Your task to perform on an android device: When is my next meeting? Image 0: 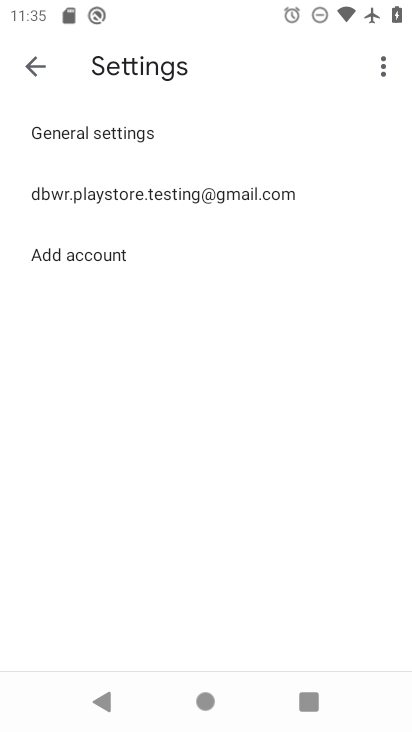
Step 0: press home button
Your task to perform on an android device: When is my next meeting? Image 1: 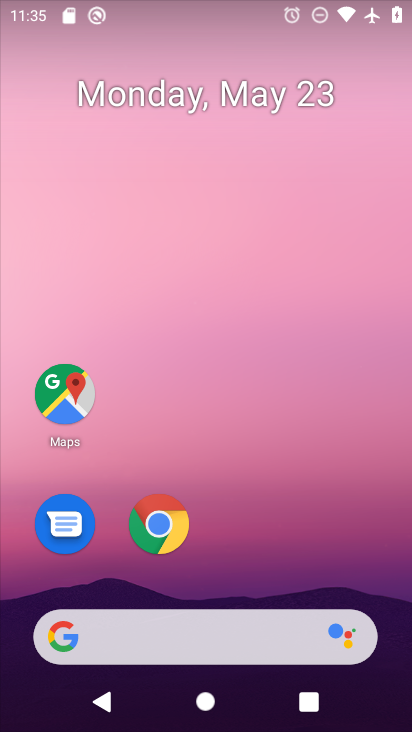
Step 1: drag from (248, 569) to (297, 123)
Your task to perform on an android device: When is my next meeting? Image 2: 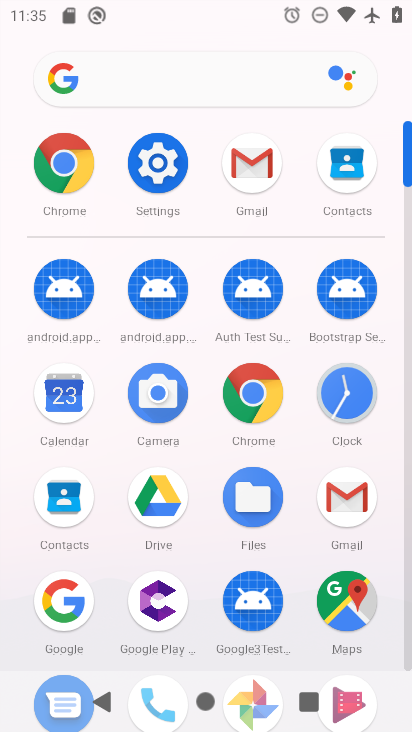
Step 2: click (76, 406)
Your task to perform on an android device: When is my next meeting? Image 3: 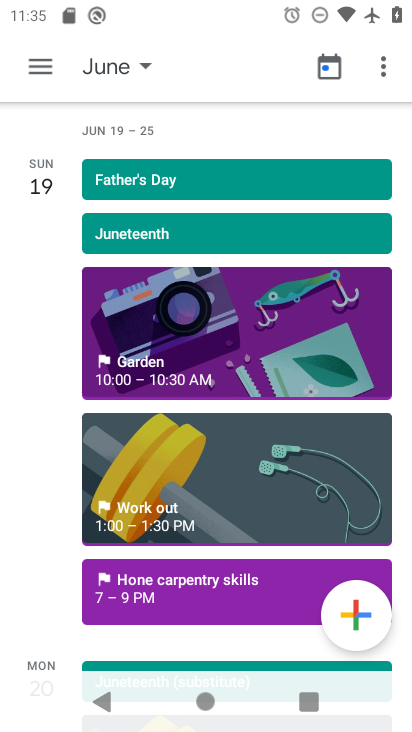
Step 3: drag from (270, 524) to (266, 401)
Your task to perform on an android device: When is my next meeting? Image 4: 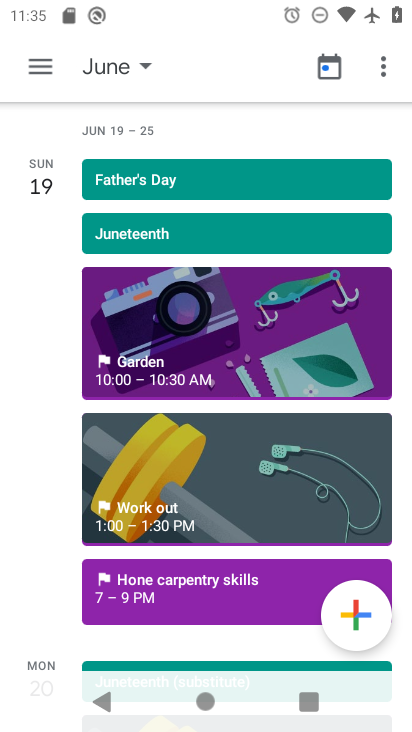
Step 4: click (140, 71)
Your task to perform on an android device: When is my next meeting? Image 5: 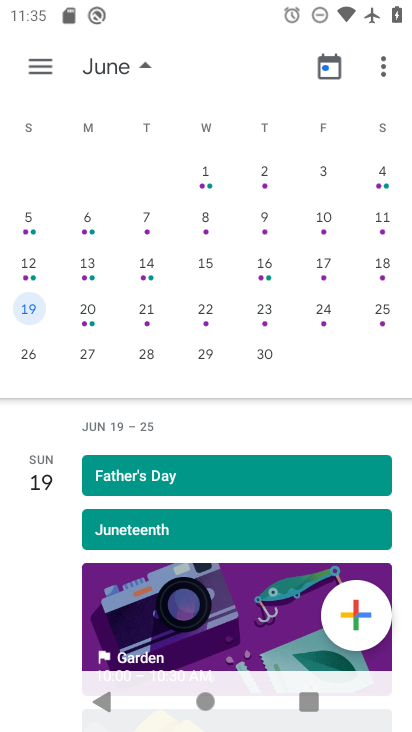
Step 5: drag from (105, 252) to (411, 280)
Your task to perform on an android device: When is my next meeting? Image 6: 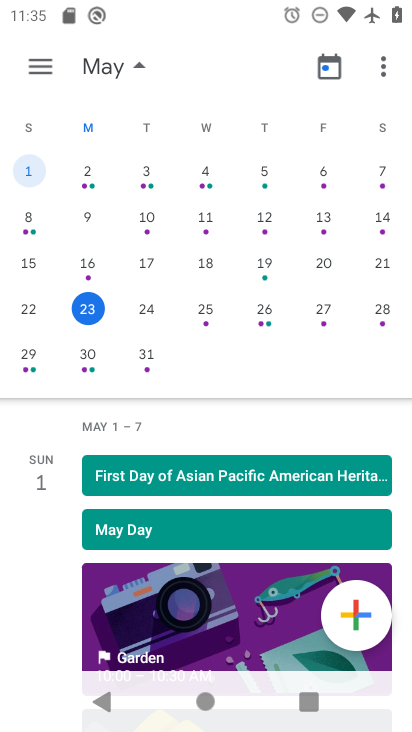
Step 6: click (98, 304)
Your task to perform on an android device: When is my next meeting? Image 7: 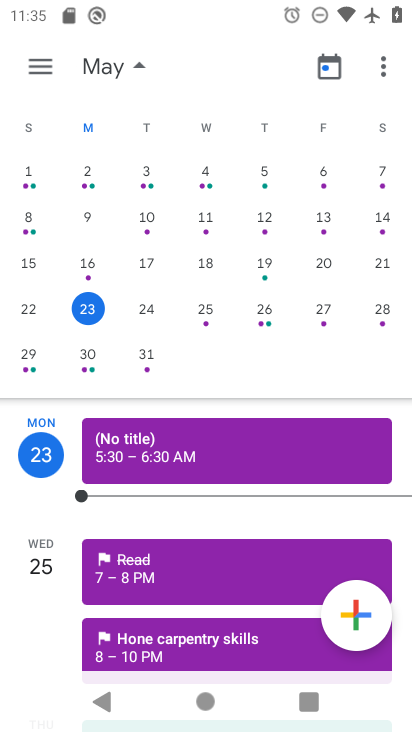
Step 7: task complete